Your task to perform on an android device: change timer sound Image 0: 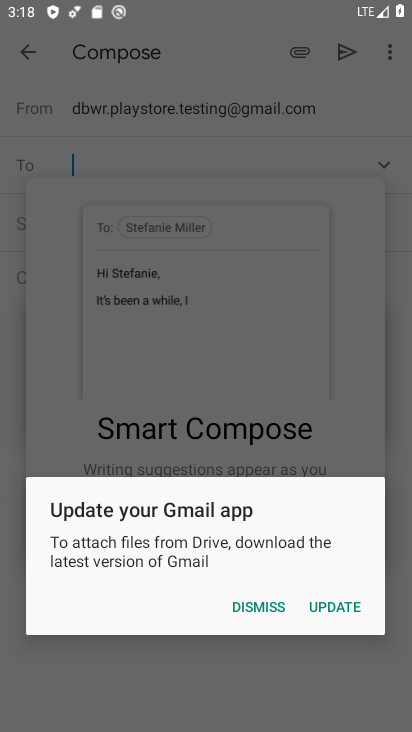
Step 0: press home button
Your task to perform on an android device: change timer sound Image 1: 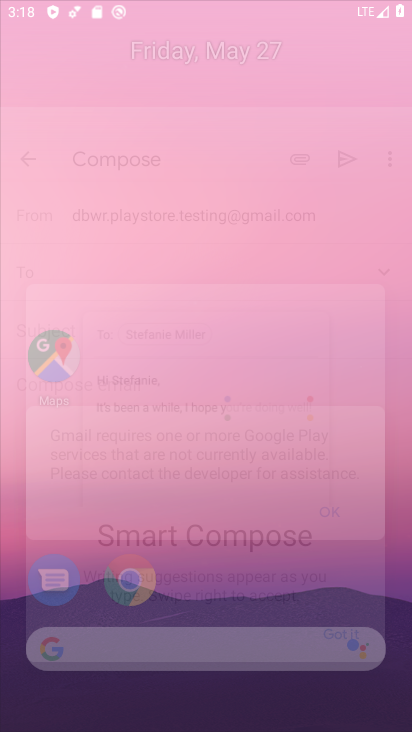
Step 1: press home button
Your task to perform on an android device: change timer sound Image 2: 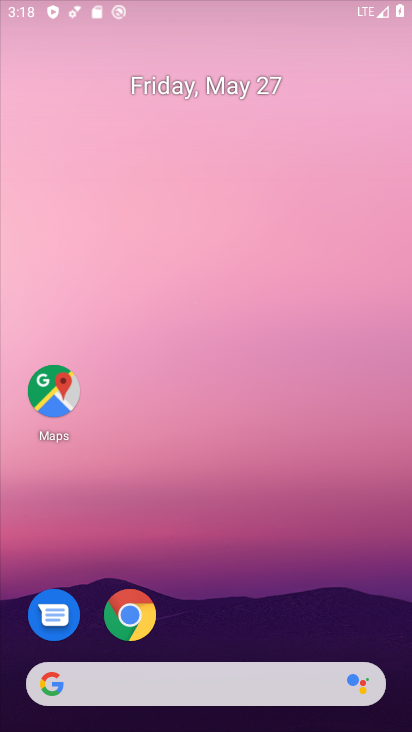
Step 2: press home button
Your task to perform on an android device: change timer sound Image 3: 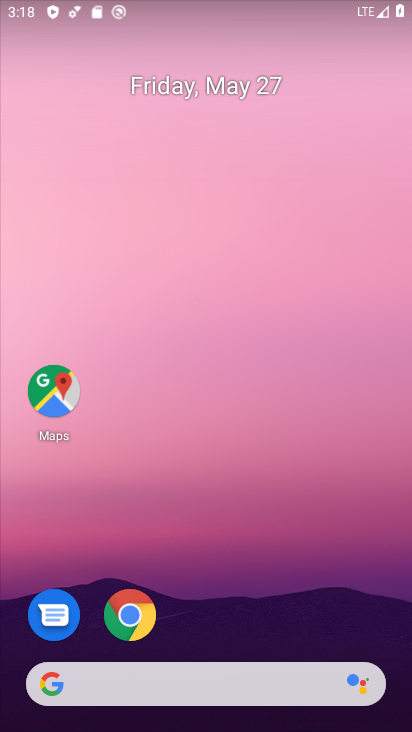
Step 3: drag from (252, 659) to (228, 236)
Your task to perform on an android device: change timer sound Image 4: 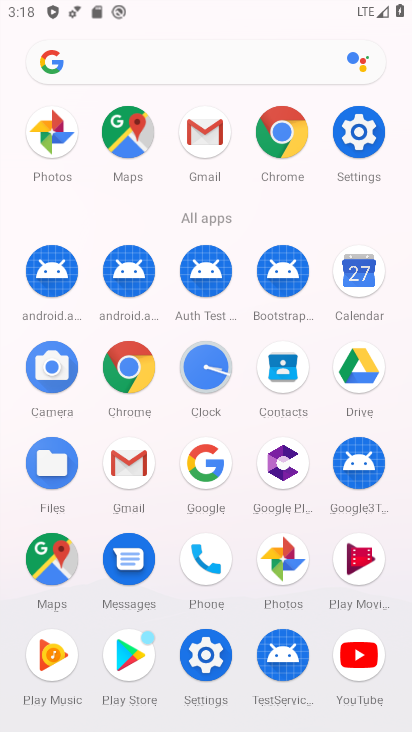
Step 4: click (195, 373)
Your task to perform on an android device: change timer sound Image 5: 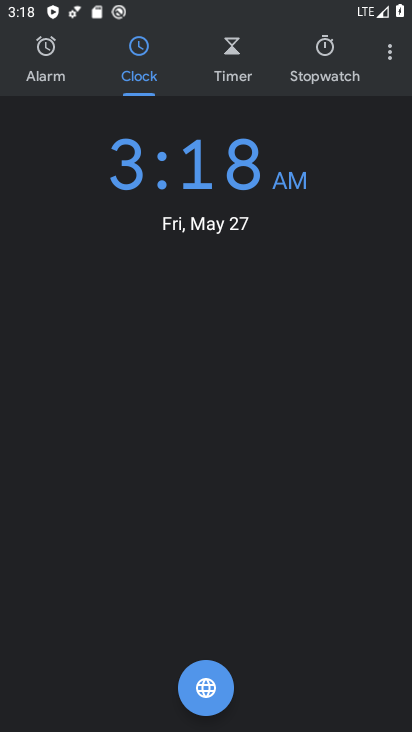
Step 5: click (388, 57)
Your task to perform on an android device: change timer sound Image 6: 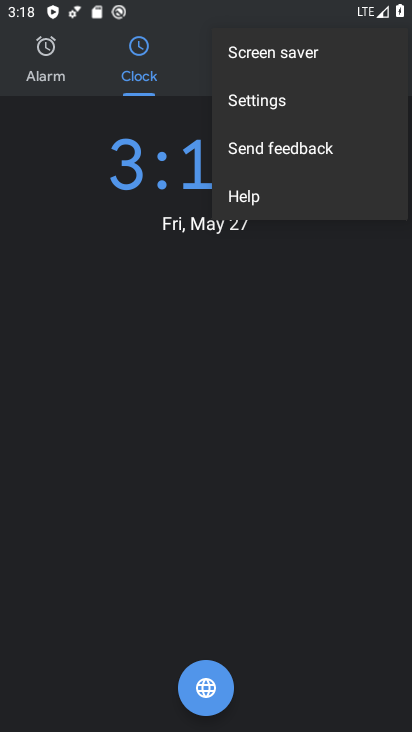
Step 6: click (283, 101)
Your task to perform on an android device: change timer sound Image 7: 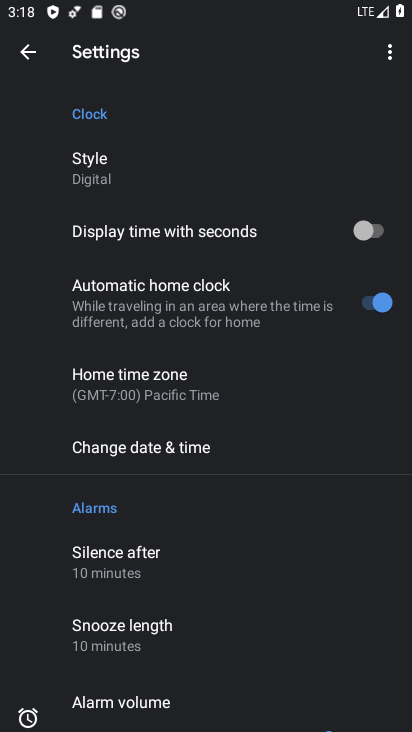
Step 7: drag from (269, 587) to (273, 408)
Your task to perform on an android device: change timer sound Image 8: 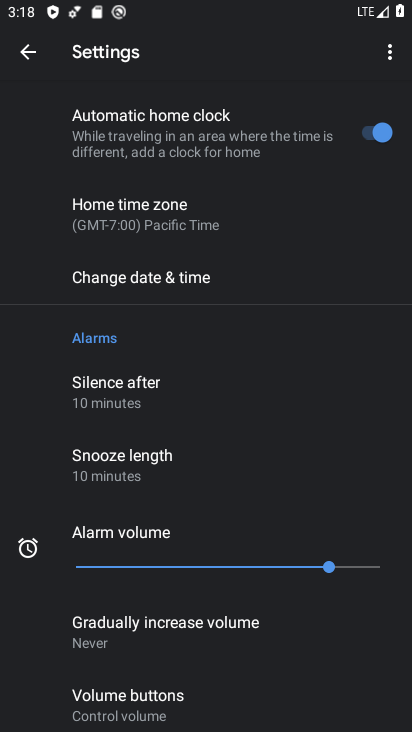
Step 8: drag from (239, 648) to (268, 322)
Your task to perform on an android device: change timer sound Image 9: 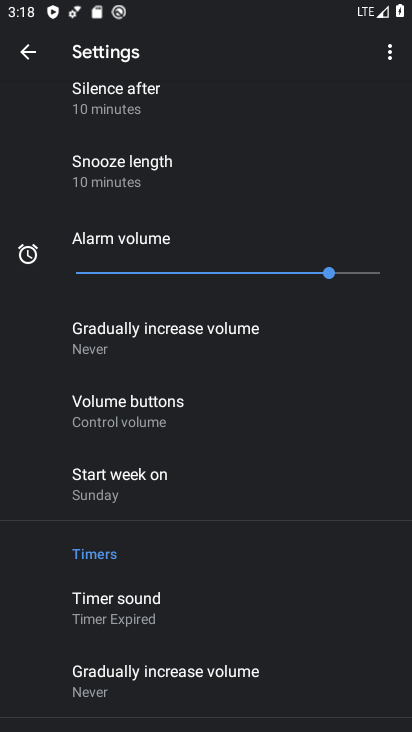
Step 9: click (115, 601)
Your task to perform on an android device: change timer sound Image 10: 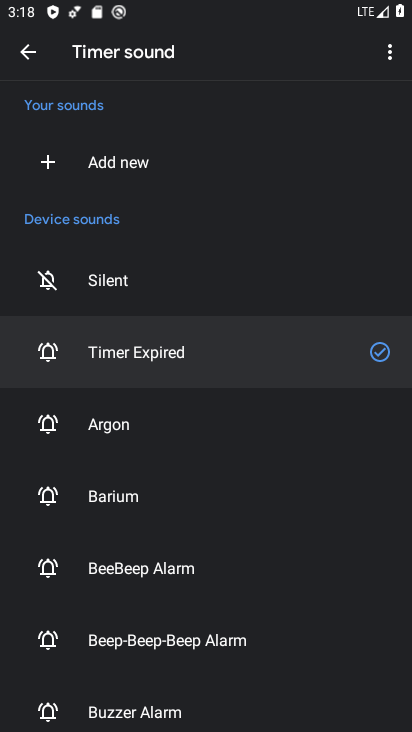
Step 10: click (114, 601)
Your task to perform on an android device: change timer sound Image 11: 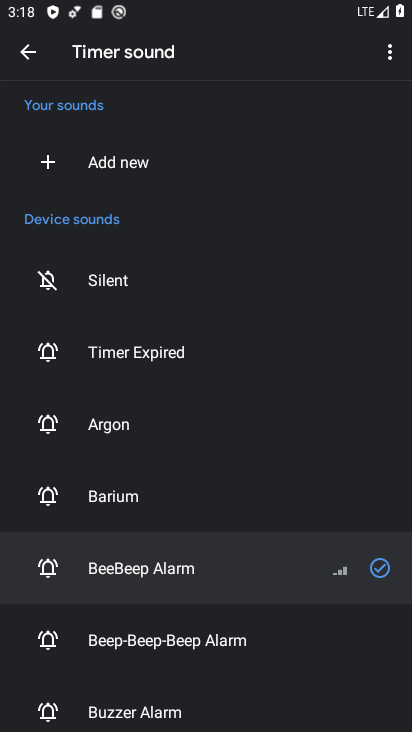
Step 11: task complete